Your task to perform on an android device: Open ESPN.com Image 0: 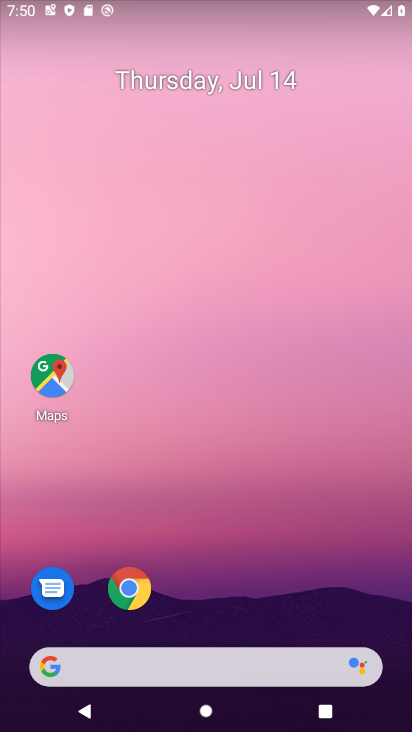
Step 0: drag from (266, 600) to (187, 94)
Your task to perform on an android device: Open ESPN.com Image 1: 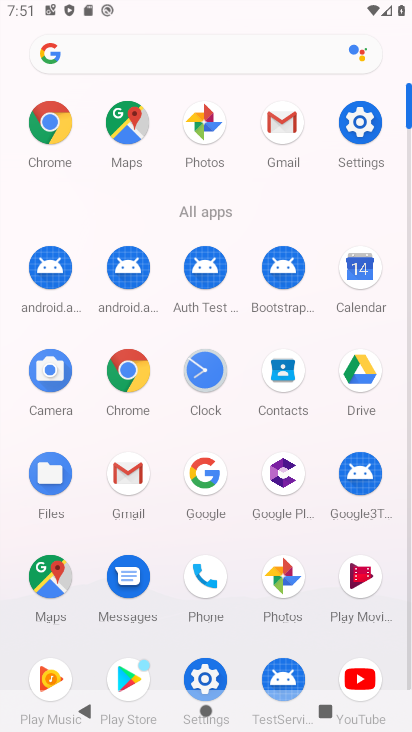
Step 1: click (131, 374)
Your task to perform on an android device: Open ESPN.com Image 2: 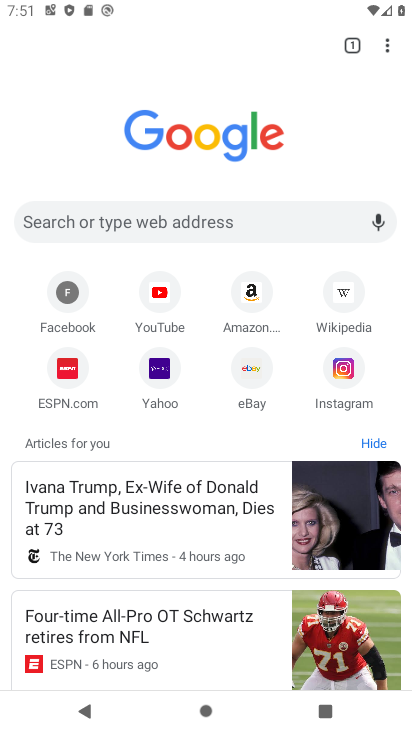
Step 2: click (58, 370)
Your task to perform on an android device: Open ESPN.com Image 3: 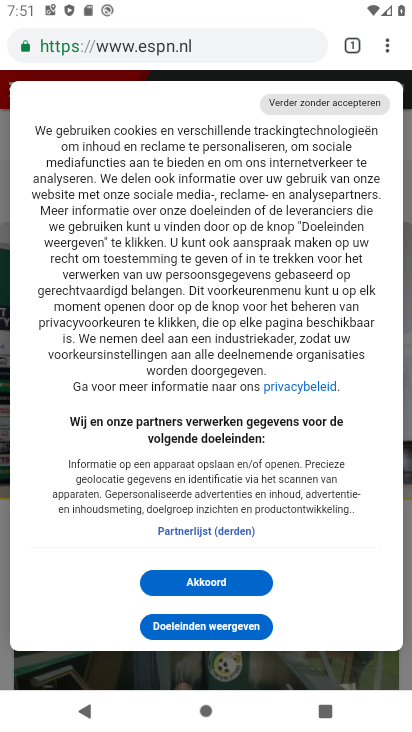
Step 3: task complete